Your task to perform on an android device: Open calendar and show me the first week of next month Image 0: 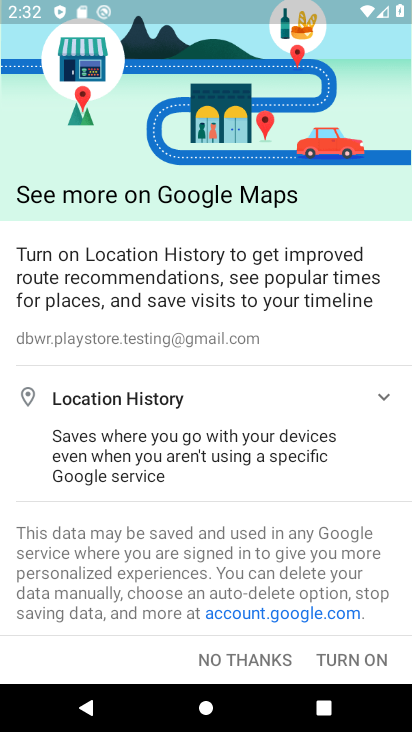
Step 0: press home button
Your task to perform on an android device: Open calendar and show me the first week of next month Image 1: 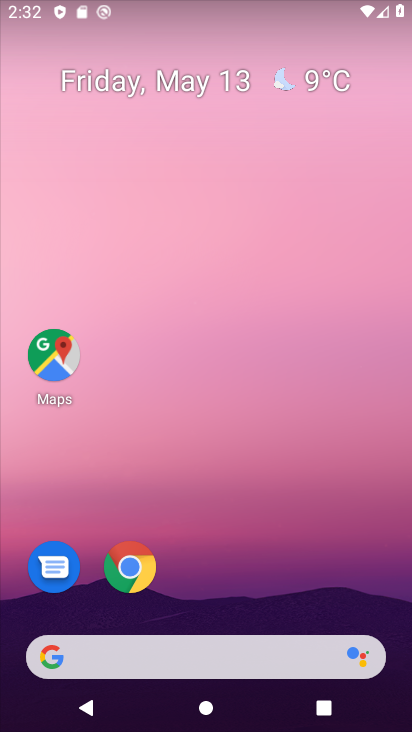
Step 1: drag from (309, 610) to (345, 62)
Your task to perform on an android device: Open calendar and show me the first week of next month Image 2: 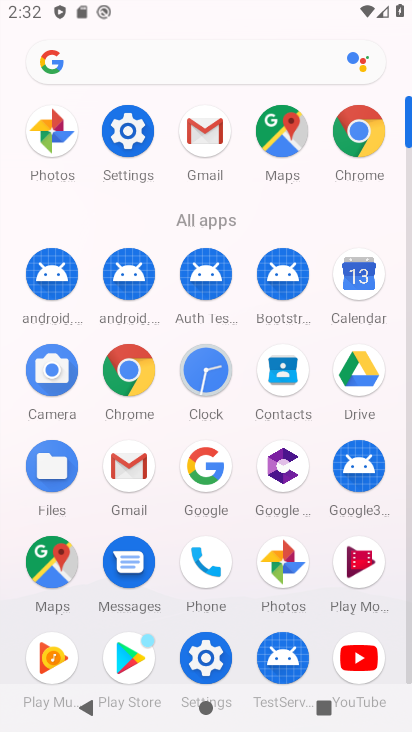
Step 2: click (354, 281)
Your task to perform on an android device: Open calendar and show me the first week of next month Image 3: 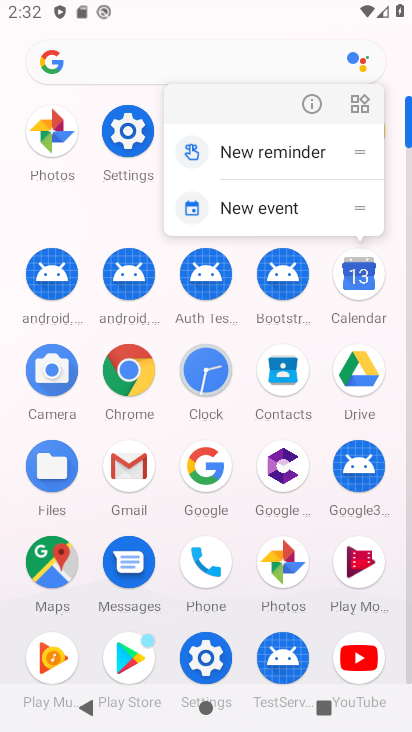
Step 3: click (357, 282)
Your task to perform on an android device: Open calendar and show me the first week of next month Image 4: 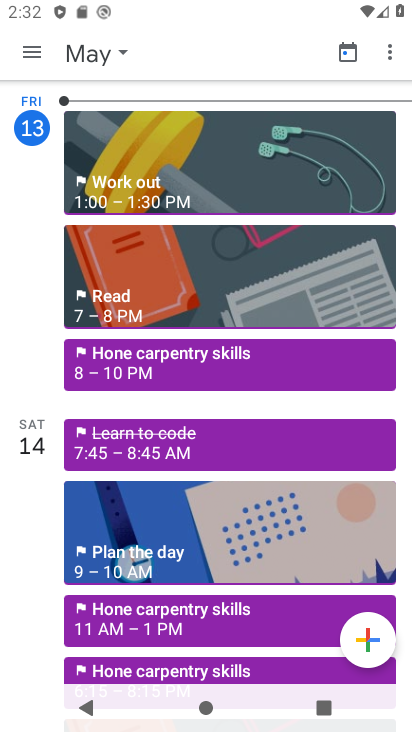
Step 4: click (122, 50)
Your task to perform on an android device: Open calendar and show me the first week of next month Image 5: 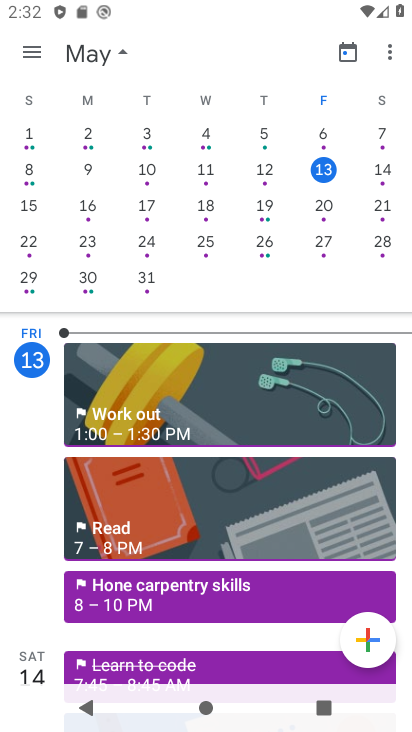
Step 5: drag from (364, 276) to (18, 252)
Your task to perform on an android device: Open calendar and show me the first week of next month Image 6: 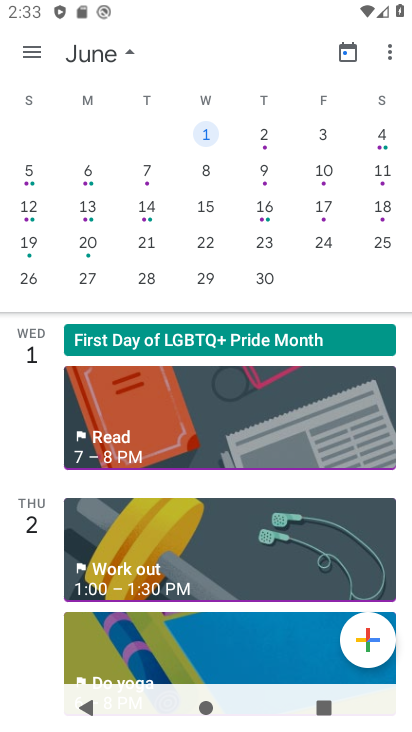
Step 6: click (29, 46)
Your task to perform on an android device: Open calendar and show me the first week of next month Image 7: 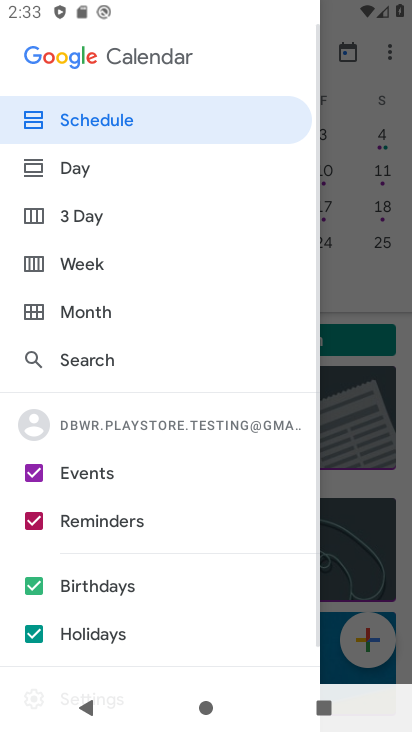
Step 7: click (68, 265)
Your task to perform on an android device: Open calendar and show me the first week of next month Image 8: 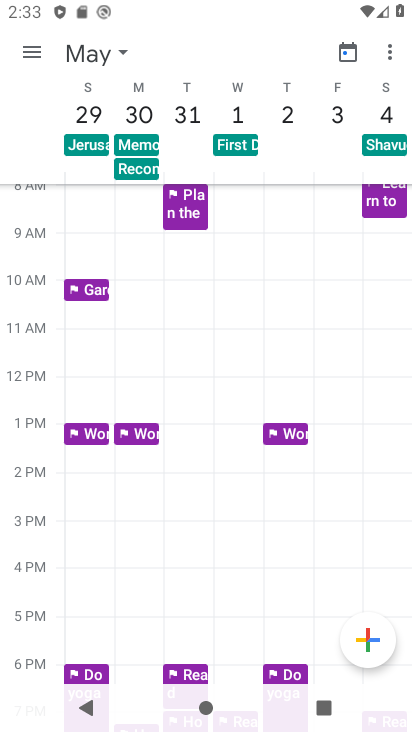
Step 8: task complete